Your task to perform on an android device: turn off javascript in the chrome app Image 0: 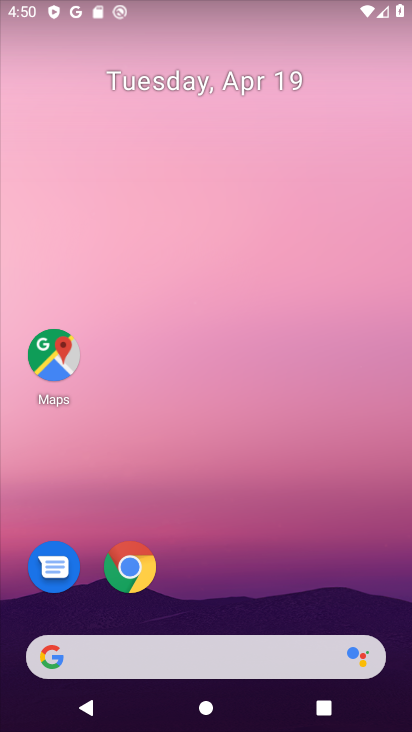
Step 0: drag from (190, 646) to (250, 16)
Your task to perform on an android device: turn off javascript in the chrome app Image 1: 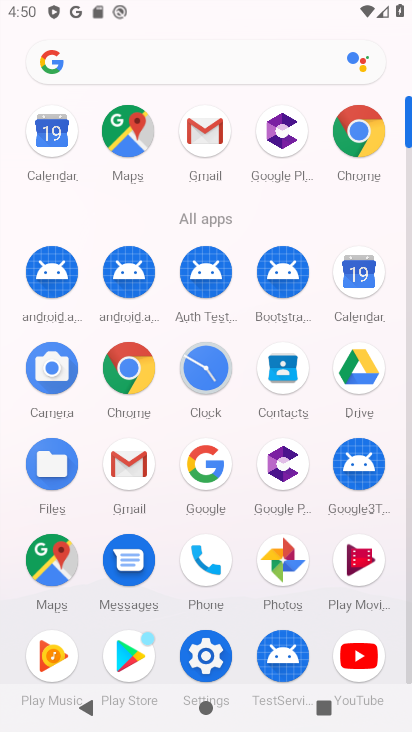
Step 1: click (145, 368)
Your task to perform on an android device: turn off javascript in the chrome app Image 2: 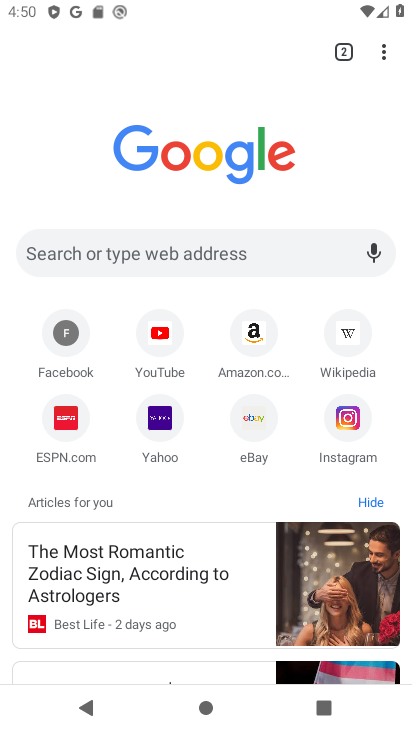
Step 2: click (378, 52)
Your task to perform on an android device: turn off javascript in the chrome app Image 3: 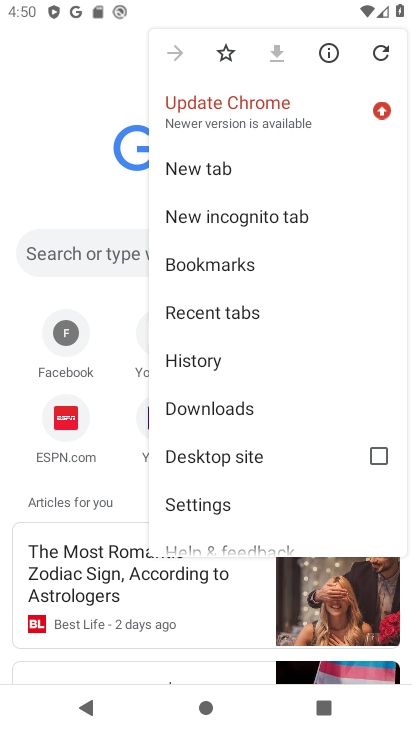
Step 3: click (222, 506)
Your task to perform on an android device: turn off javascript in the chrome app Image 4: 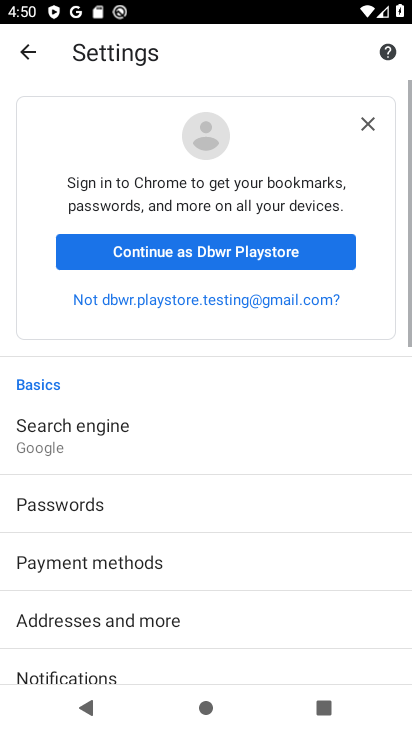
Step 4: drag from (212, 553) to (263, 133)
Your task to perform on an android device: turn off javascript in the chrome app Image 5: 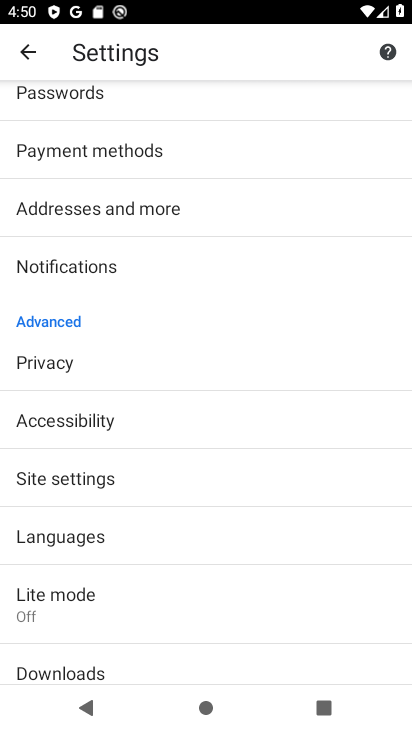
Step 5: click (169, 491)
Your task to perform on an android device: turn off javascript in the chrome app Image 6: 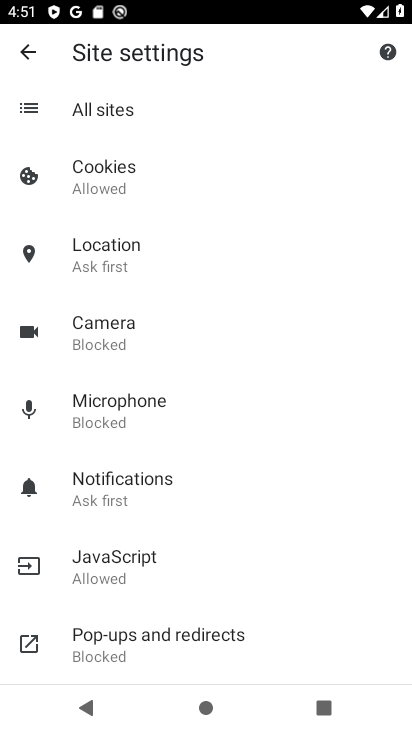
Step 6: click (158, 561)
Your task to perform on an android device: turn off javascript in the chrome app Image 7: 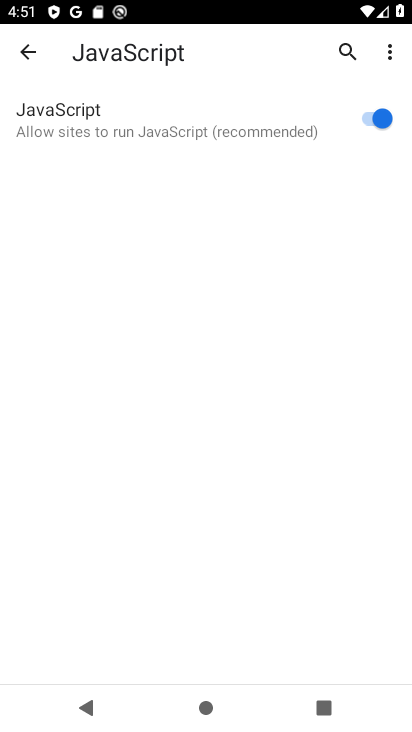
Step 7: click (375, 119)
Your task to perform on an android device: turn off javascript in the chrome app Image 8: 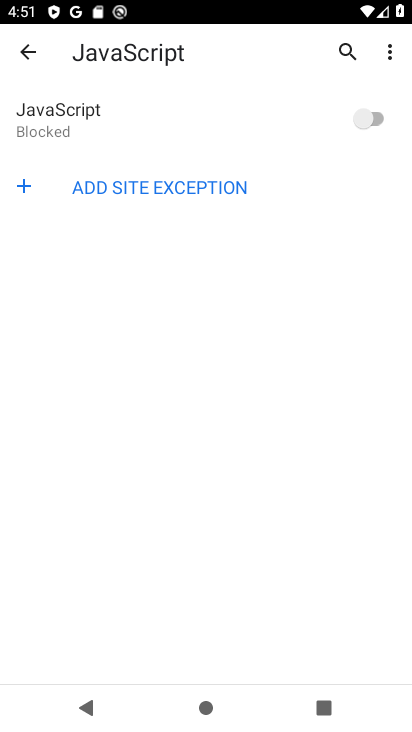
Step 8: task complete